Your task to perform on an android device: stop showing notifications on the lock screen Image 0: 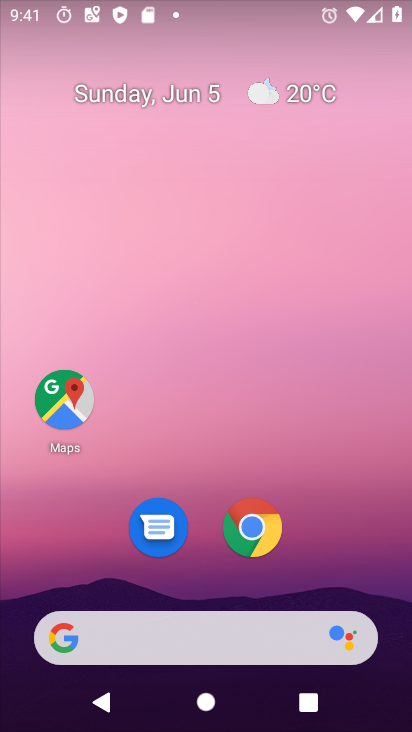
Step 0: drag from (350, 541) to (157, 5)
Your task to perform on an android device: stop showing notifications on the lock screen Image 1: 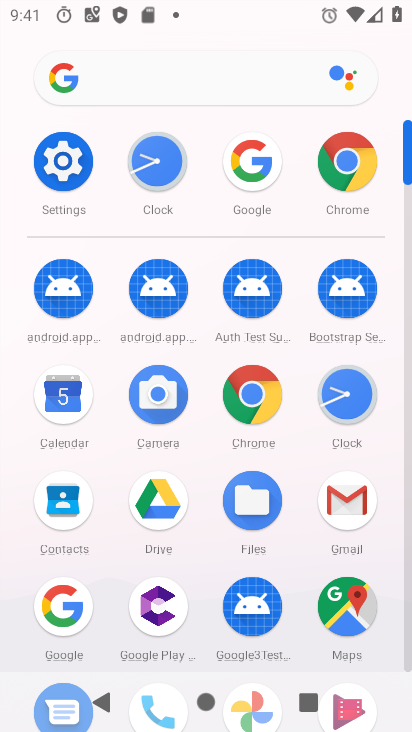
Step 1: click (75, 193)
Your task to perform on an android device: stop showing notifications on the lock screen Image 2: 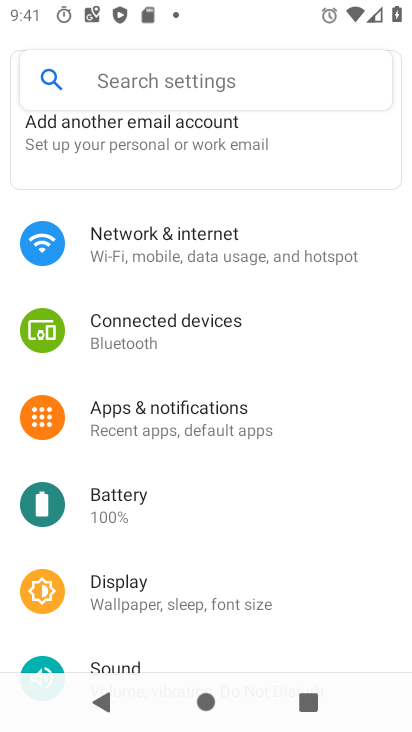
Step 2: click (182, 420)
Your task to perform on an android device: stop showing notifications on the lock screen Image 3: 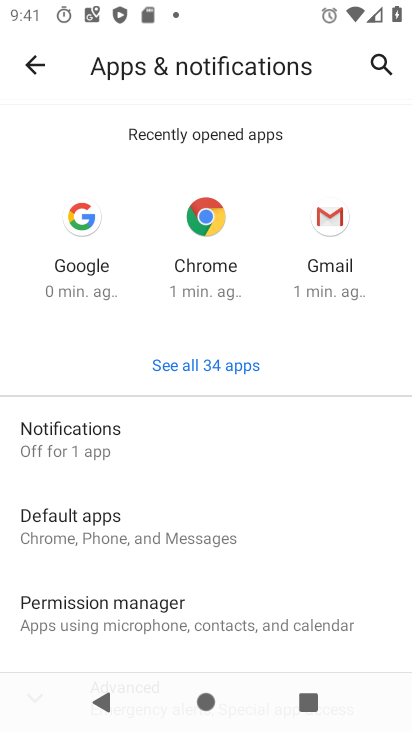
Step 3: click (69, 448)
Your task to perform on an android device: stop showing notifications on the lock screen Image 4: 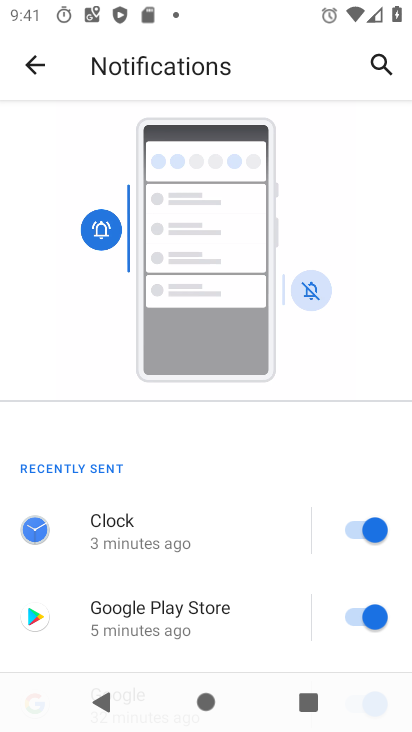
Step 4: drag from (192, 564) to (212, 49)
Your task to perform on an android device: stop showing notifications on the lock screen Image 5: 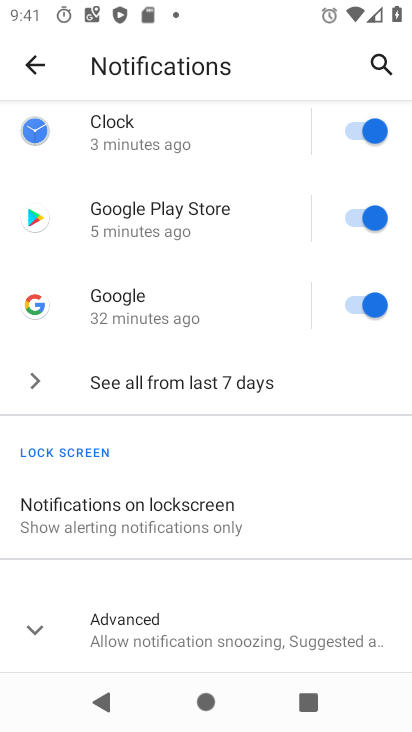
Step 5: click (177, 615)
Your task to perform on an android device: stop showing notifications on the lock screen Image 6: 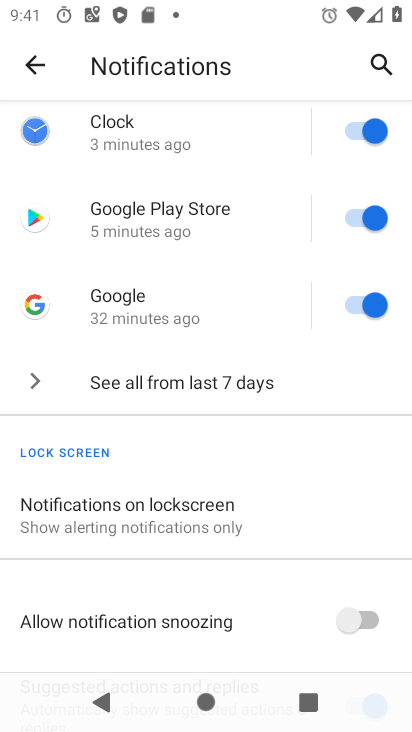
Step 6: click (148, 497)
Your task to perform on an android device: stop showing notifications on the lock screen Image 7: 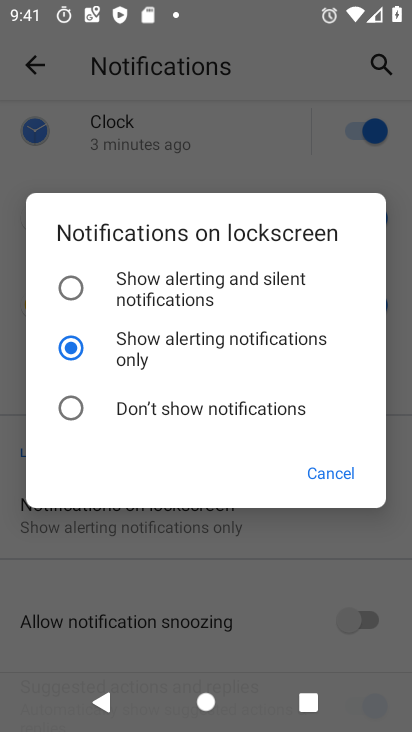
Step 7: click (72, 404)
Your task to perform on an android device: stop showing notifications on the lock screen Image 8: 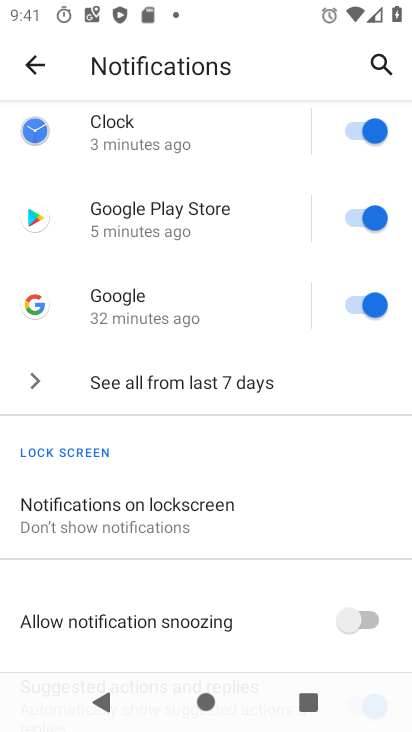
Step 8: task complete